Your task to perform on an android device: check battery use Image 0: 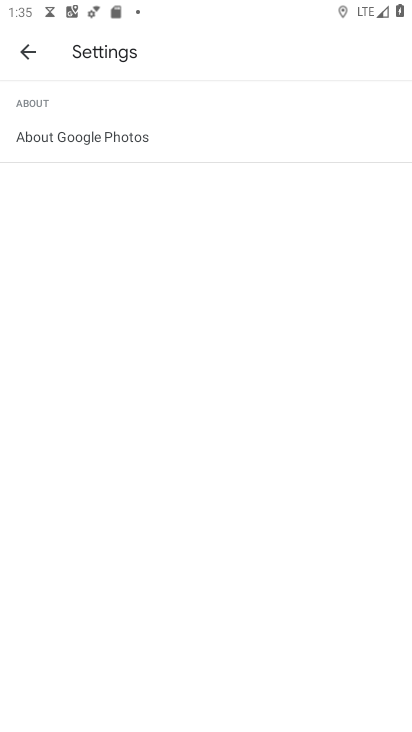
Step 0: press home button
Your task to perform on an android device: check battery use Image 1: 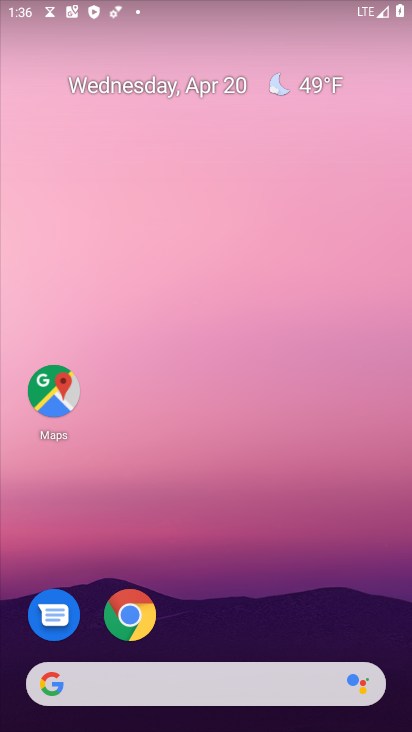
Step 1: drag from (295, 280) to (340, 182)
Your task to perform on an android device: check battery use Image 2: 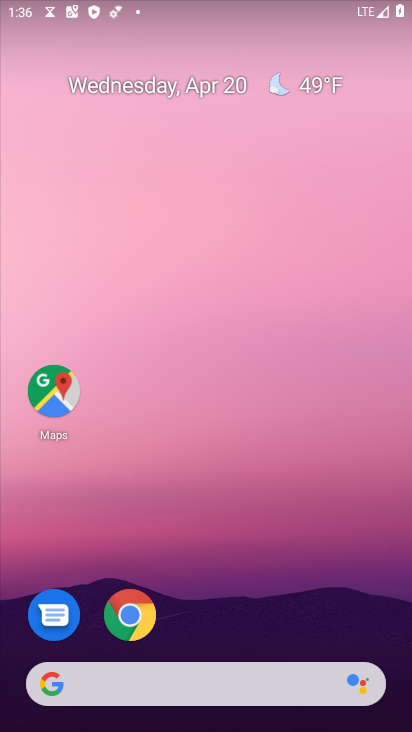
Step 2: drag from (103, 517) to (271, 218)
Your task to perform on an android device: check battery use Image 3: 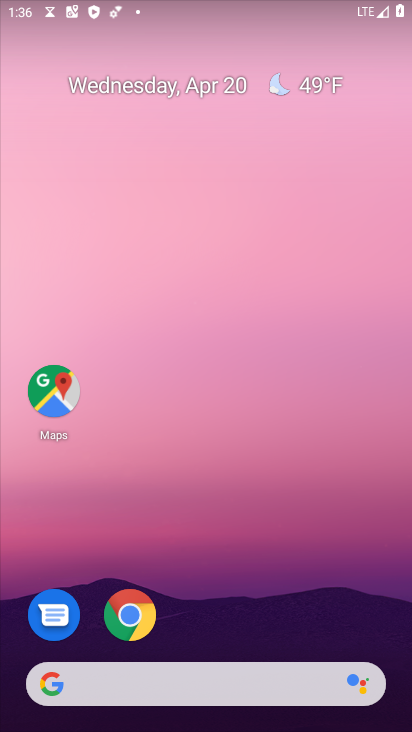
Step 3: drag from (176, 447) to (262, 286)
Your task to perform on an android device: check battery use Image 4: 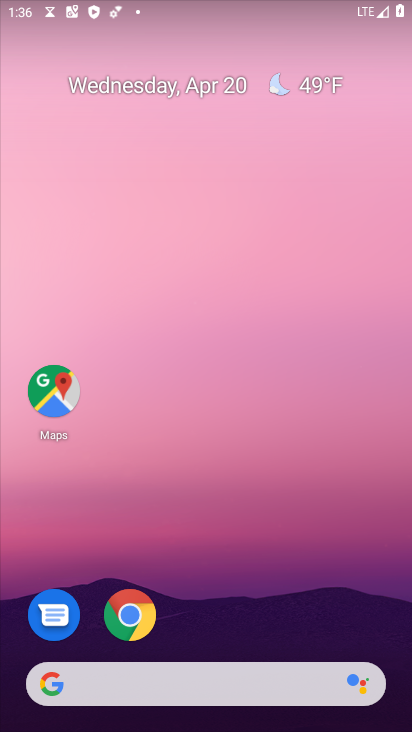
Step 4: click (26, 707)
Your task to perform on an android device: check battery use Image 5: 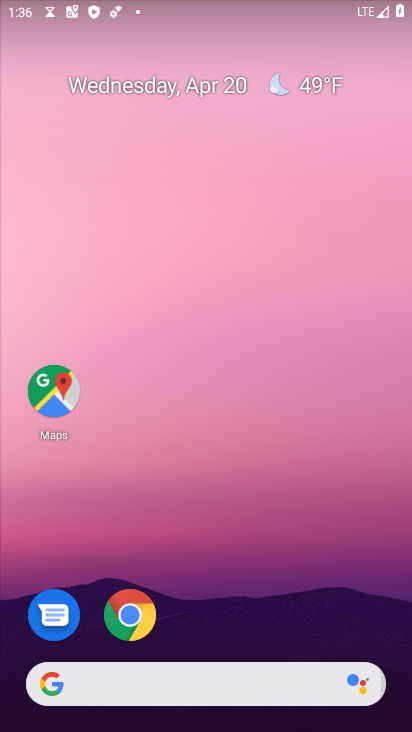
Step 5: drag from (52, 600) to (233, 248)
Your task to perform on an android device: check battery use Image 6: 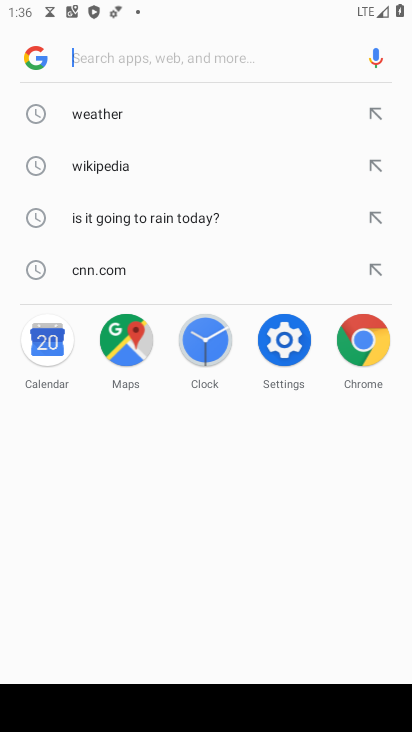
Step 6: press home button
Your task to perform on an android device: check battery use Image 7: 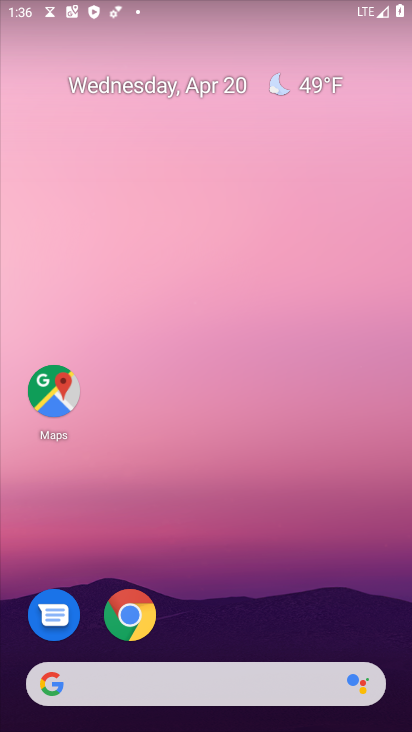
Step 7: drag from (24, 647) to (229, 275)
Your task to perform on an android device: check battery use Image 8: 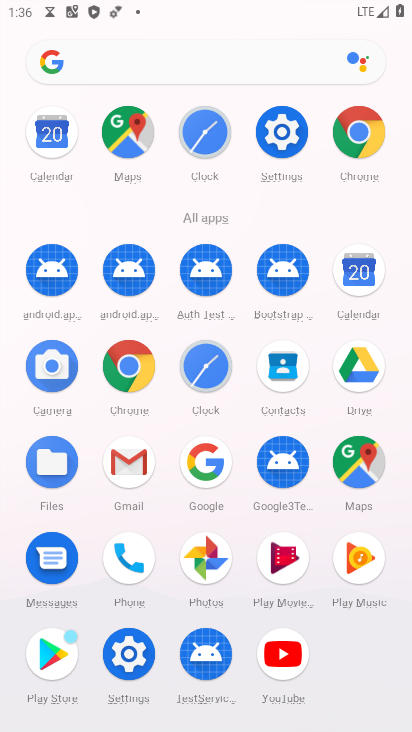
Step 8: click (283, 131)
Your task to perform on an android device: check battery use Image 9: 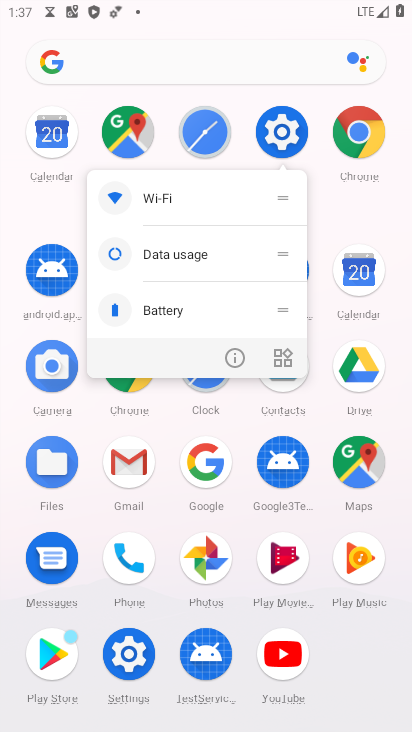
Step 9: click (284, 132)
Your task to perform on an android device: check battery use Image 10: 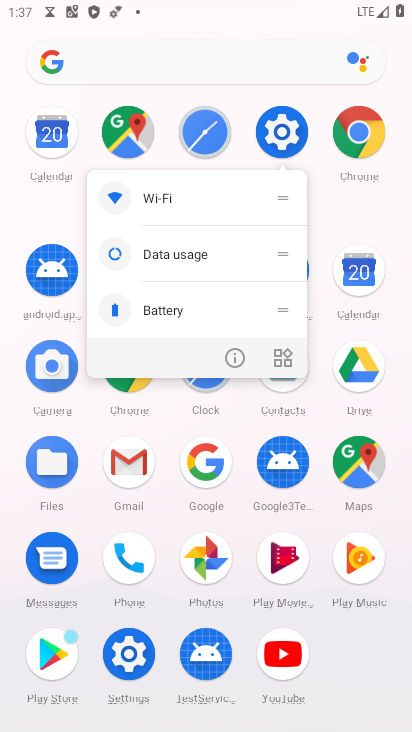
Step 10: click (277, 148)
Your task to perform on an android device: check battery use Image 11: 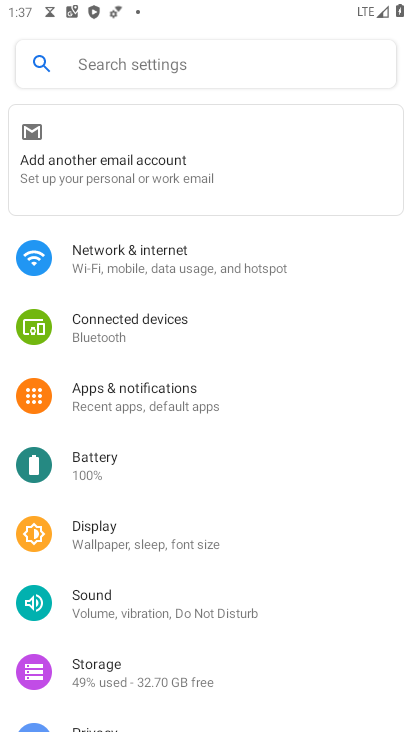
Step 11: click (68, 459)
Your task to perform on an android device: check battery use Image 12: 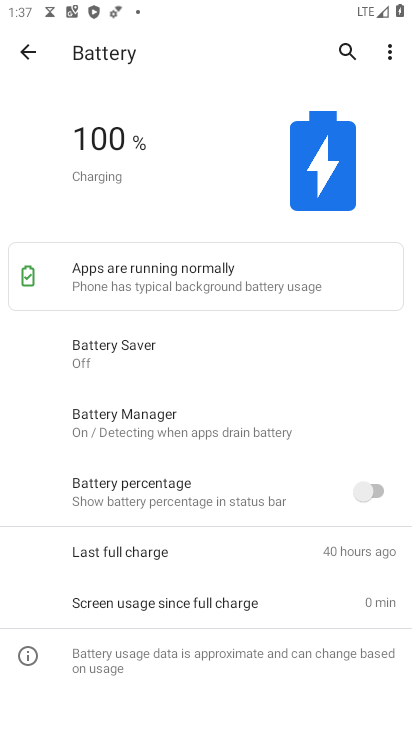
Step 12: task complete